Your task to perform on an android device: change the clock display to show seconds Image 0: 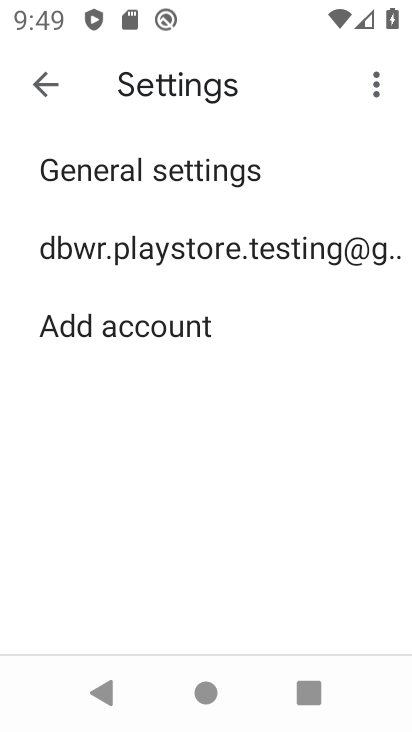
Step 0: press home button
Your task to perform on an android device: change the clock display to show seconds Image 1: 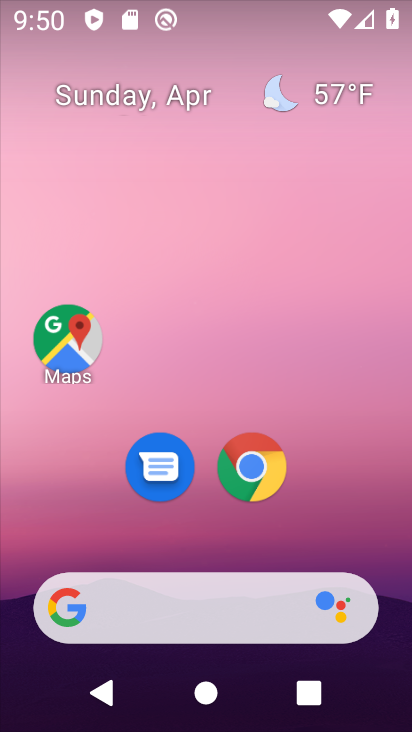
Step 1: drag from (367, 529) to (296, 131)
Your task to perform on an android device: change the clock display to show seconds Image 2: 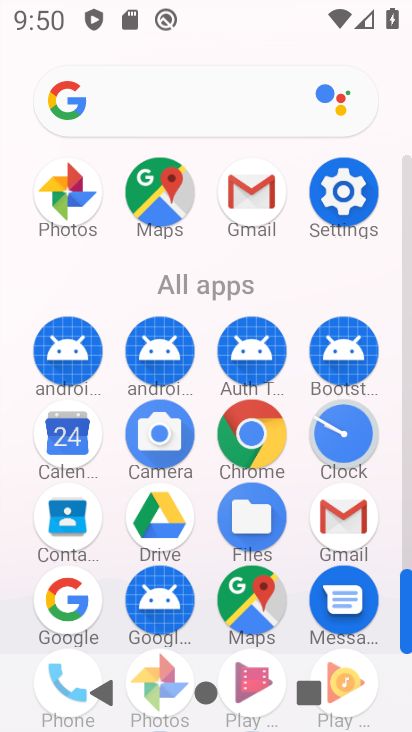
Step 2: click (345, 413)
Your task to perform on an android device: change the clock display to show seconds Image 3: 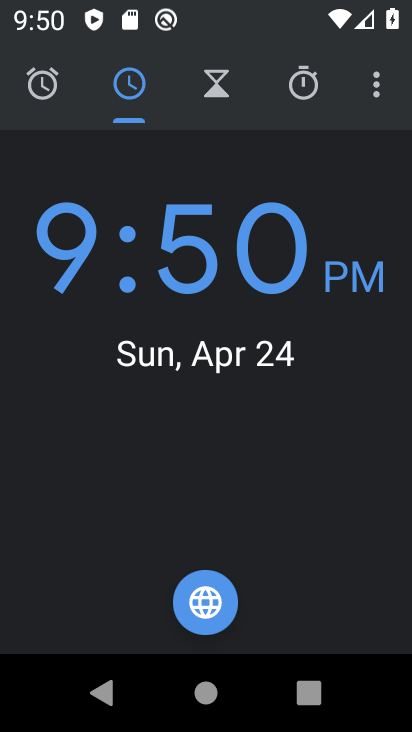
Step 3: click (387, 85)
Your task to perform on an android device: change the clock display to show seconds Image 4: 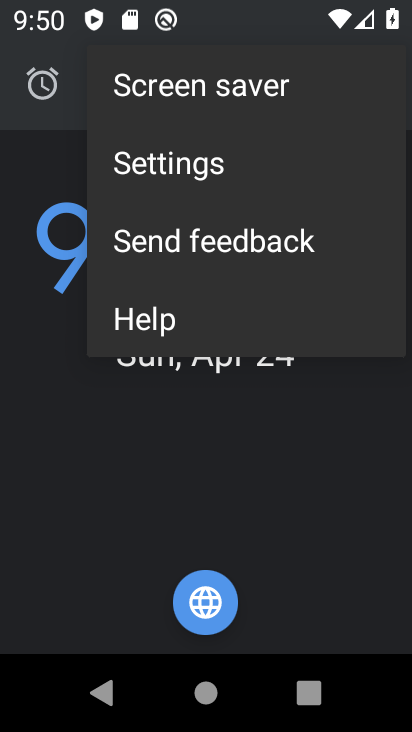
Step 4: click (210, 181)
Your task to perform on an android device: change the clock display to show seconds Image 5: 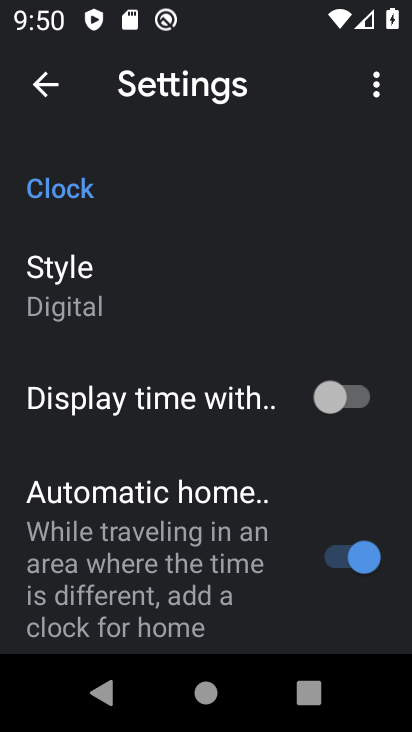
Step 5: click (324, 398)
Your task to perform on an android device: change the clock display to show seconds Image 6: 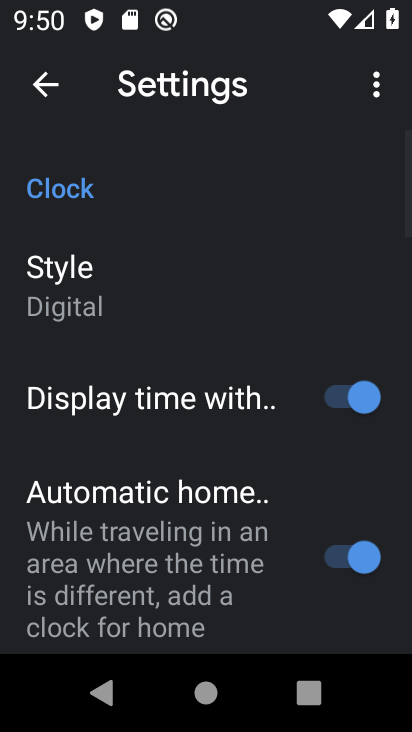
Step 6: task complete